Your task to perform on an android device: star an email in the gmail app Image 0: 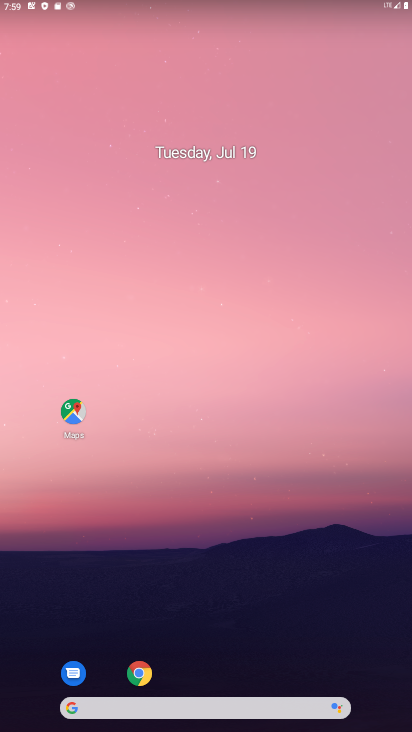
Step 0: drag from (365, 662) to (332, 24)
Your task to perform on an android device: star an email in the gmail app Image 1: 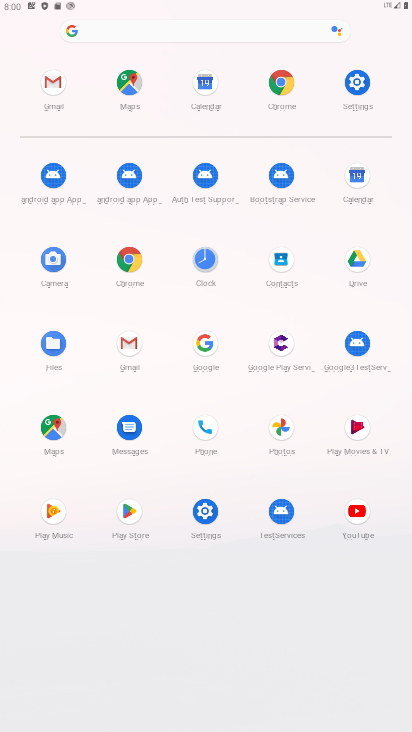
Step 1: click (130, 346)
Your task to perform on an android device: star an email in the gmail app Image 2: 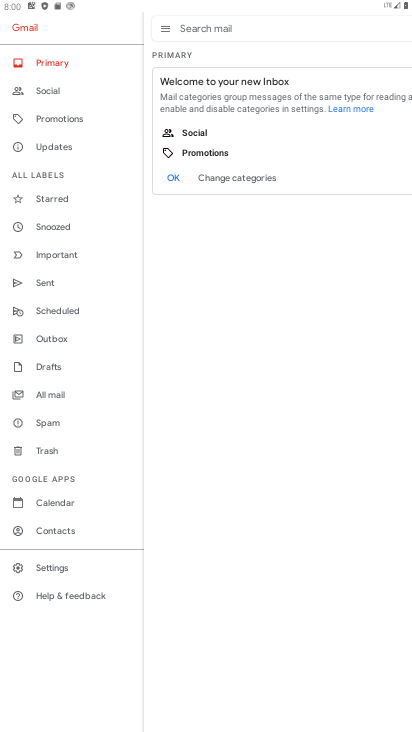
Step 2: click (48, 70)
Your task to perform on an android device: star an email in the gmail app Image 3: 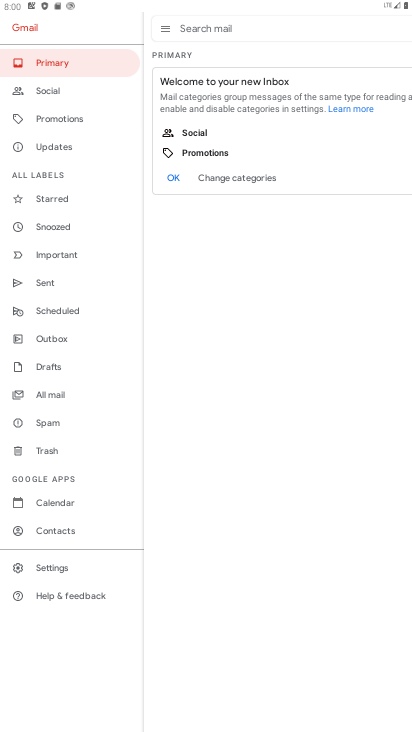
Step 3: task complete